Your task to perform on an android device: Search for Mexican restaurants on Maps Image 0: 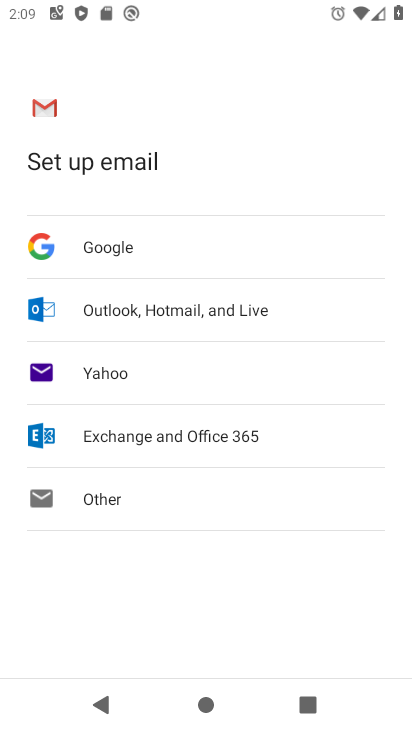
Step 0: press home button
Your task to perform on an android device: Search for Mexican restaurants on Maps Image 1: 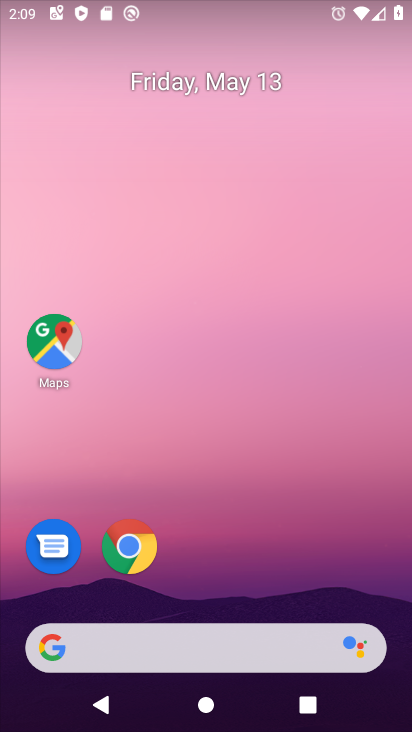
Step 1: click (65, 346)
Your task to perform on an android device: Search for Mexican restaurants on Maps Image 2: 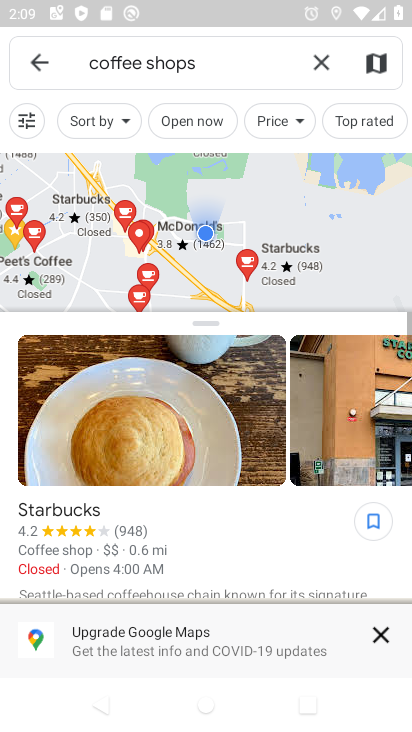
Step 2: click (244, 60)
Your task to perform on an android device: Search for Mexican restaurants on Maps Image 3: 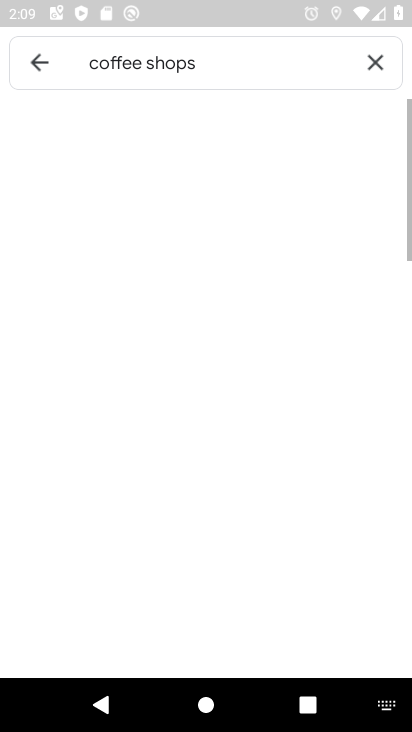
Step 3: click (377, 59)
Your task to perform on an android device: Search for Mexican restaurants on Maps Image 4: 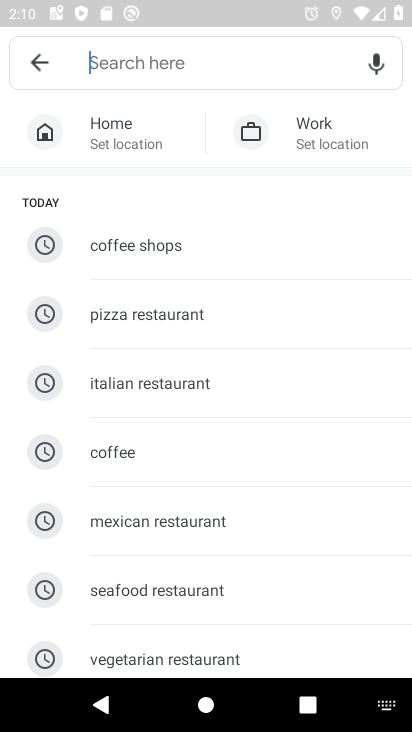
Step 4: type "Mexican restaurants"
Your task to perform on an android device: Search for Mexican restaurants on Maps Image 5: 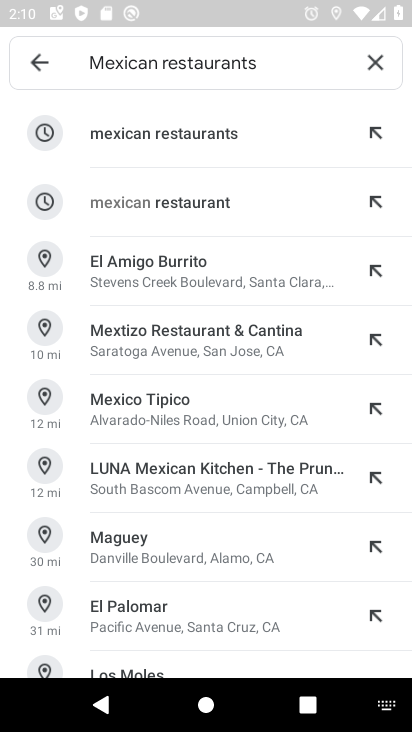
Step 5: click (229, 123)
Your task to perform on an android device: Search for Mexican restaurants on Maps Image 6: 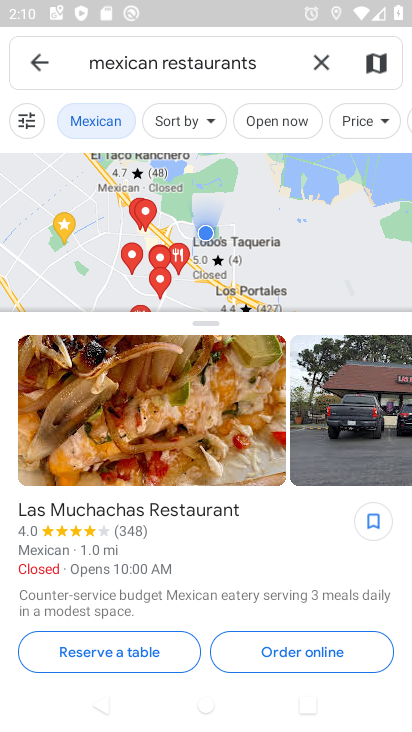
Step 6: task complete